Your task to perform on an android device: toggle pop-ups in chrome Image 0: 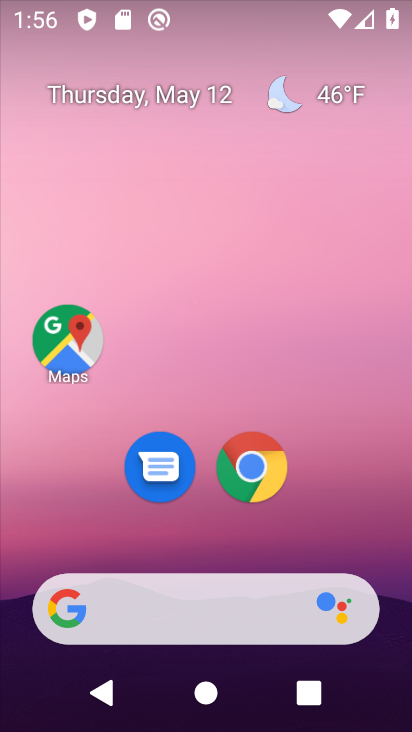
Step 0: click (280, 465)
Your task to perform on an android device: toggle pop-ups in chrome Image 1: 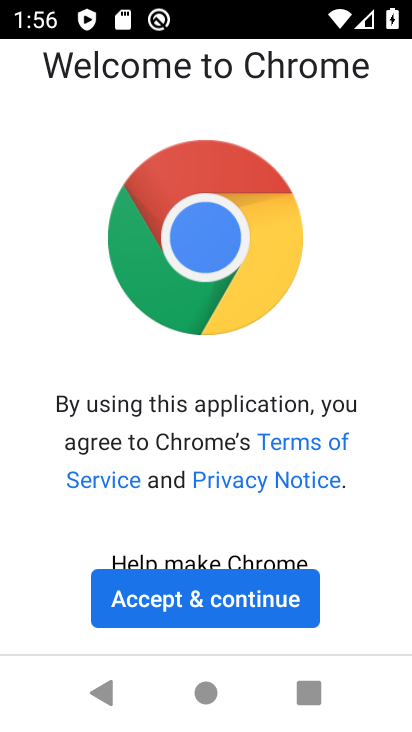
Step 1: click (296, 597)
Your task to perform on an android device: toggle pop-ups in chrome Image 2: 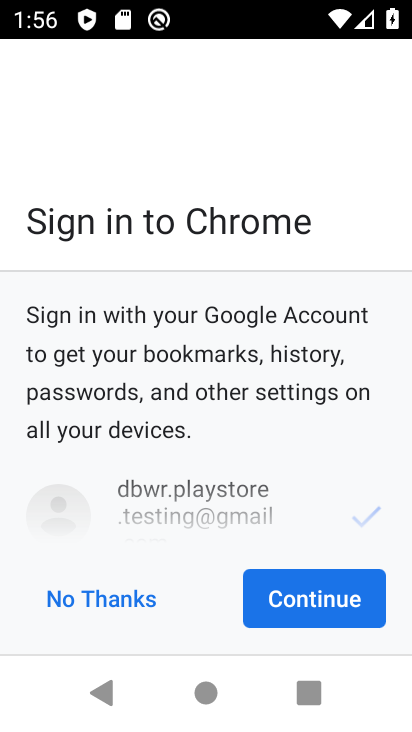
Step 2: click (296, 597)
Your task to perform on an android device: toggle pop-ups in chrome Image 3: 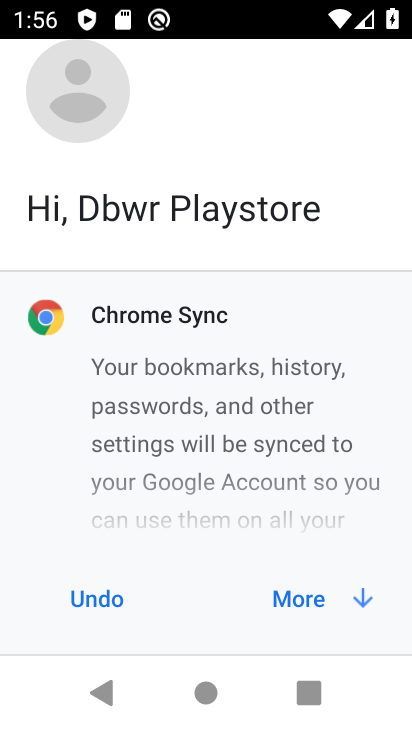
Step 3: click (312, 601)
Your task to perform on an android device: toggle pop-ups in chrome Image 4: 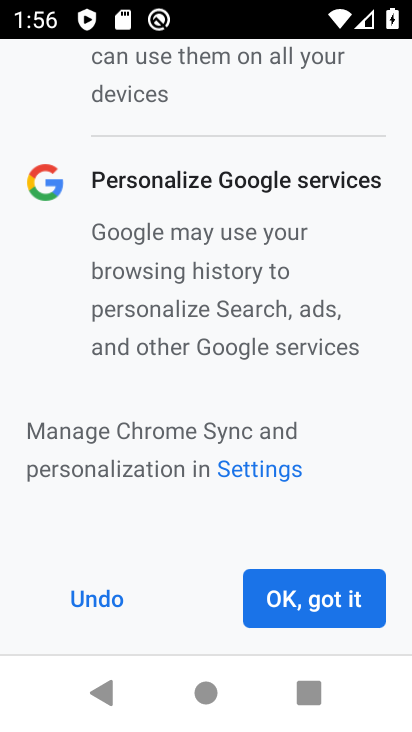
Step 4: click (312, 601)
Your task to perform on an android device: toggle pop-ups in chrome Image 5: 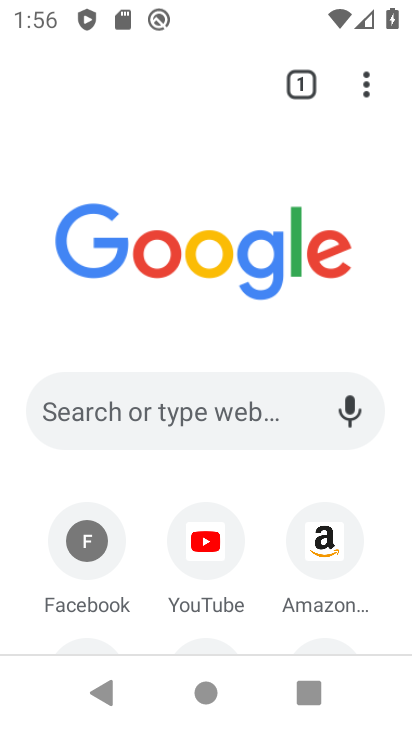
Step 5: click (366, 73)
Your task to perform on an android device: toggle pop-ups in chrome Image 6: 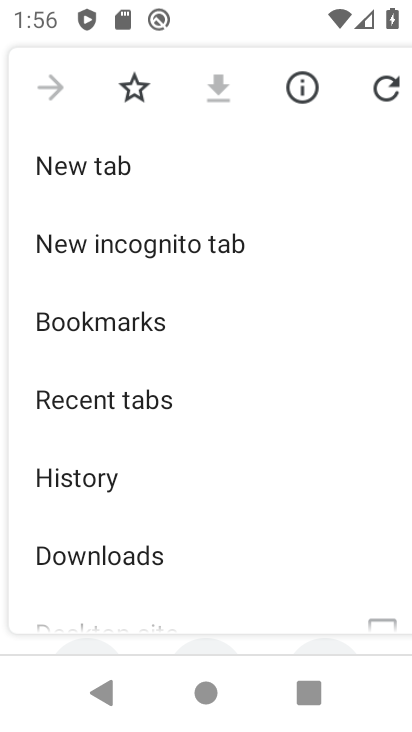
Step 6: drag from (267, 571) to (225, 290)
Your task to perform on an android device: toggle pop-ups in chrome Image 7: 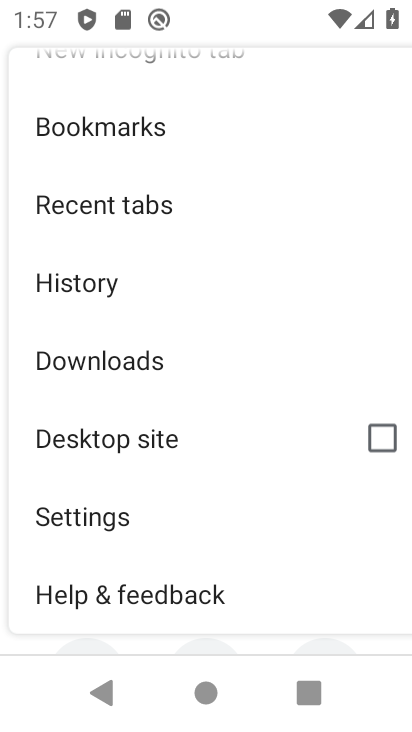
Step 7: click (176, 513)
Your task to perform on an android device: toggle pop-ups in chrome Image 8: 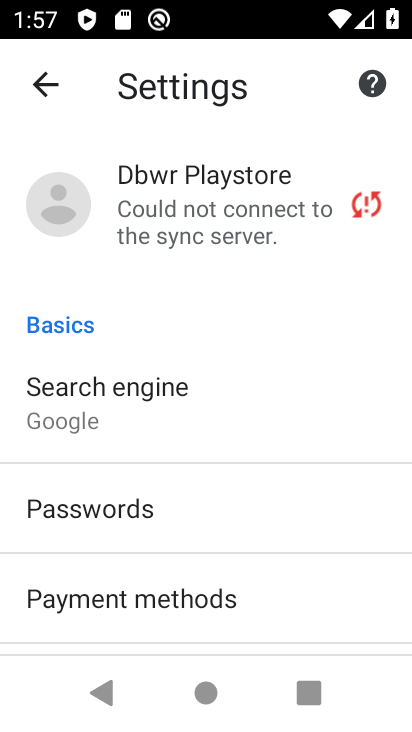
Step 8: drag from (241, 556) to (233, 343)
Your task to perform on an android device: toggle pop-ups in chrome Image 9: 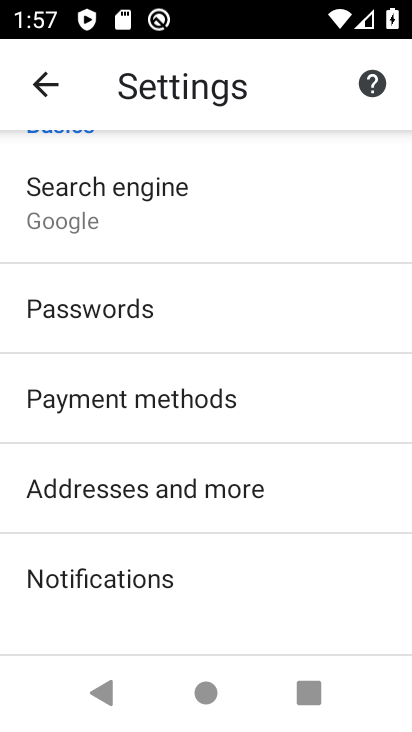
Step 9: drag from (237, 565) to (232, 314)
Your task to perform on an android device: toggle pop-ups in chrome Image 10: 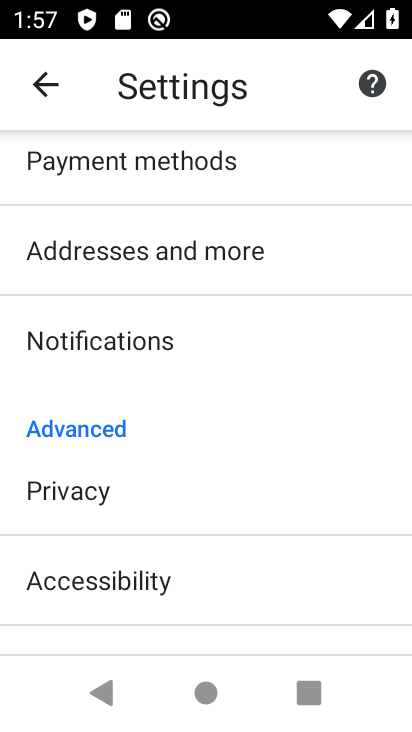
Step 10: drag from (273, 561) to (238, 358)
Your task to perform on an android device: toggle pop-ups in chrome Image 11: 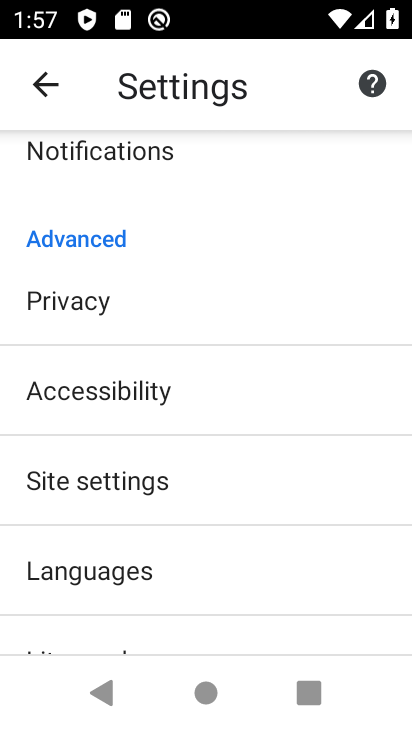
Step 11: click (226, 480)
Your task to perform on an android device: toggle pop-ups in chrome Image 12: 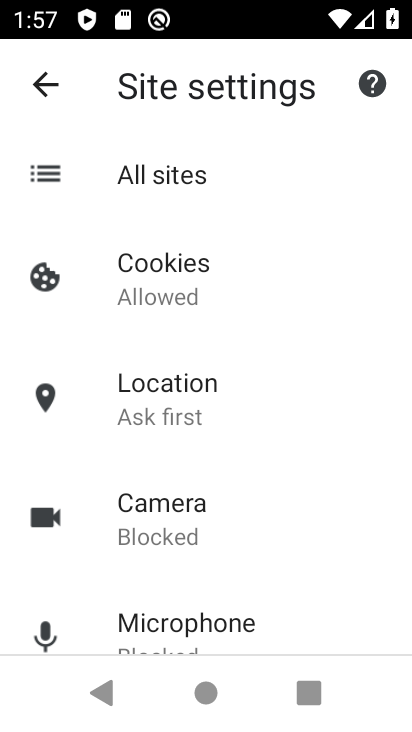
Step 12: drag from (274, 524) to (256, 241)
Your task to perform on an android device: toggle pop-ups in chrome Image 13: 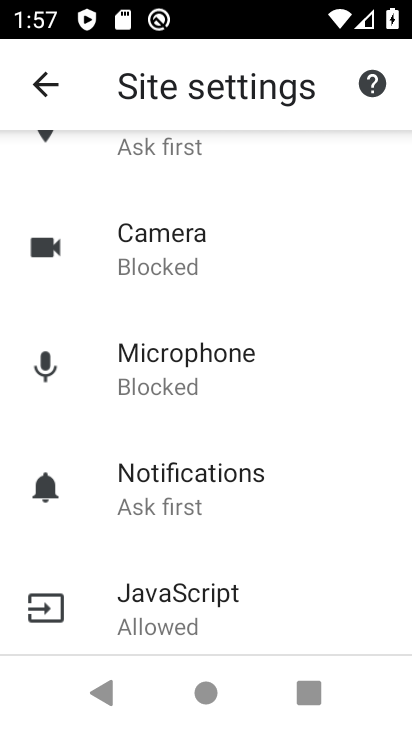
Step 13: drag from (253, 559) to (229, 273)
Your task to perform on an android device: toggle pop-ups in chrome Image 14: 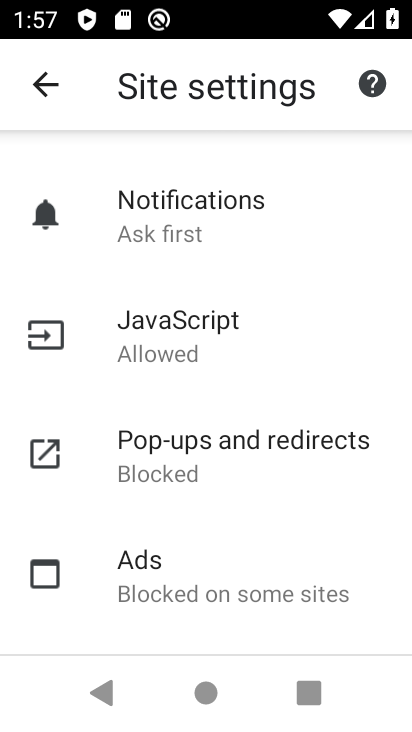
Step 14: click (213, 460)
Your task to perform on an android device: toggle pop-ups in chrome Image 15: 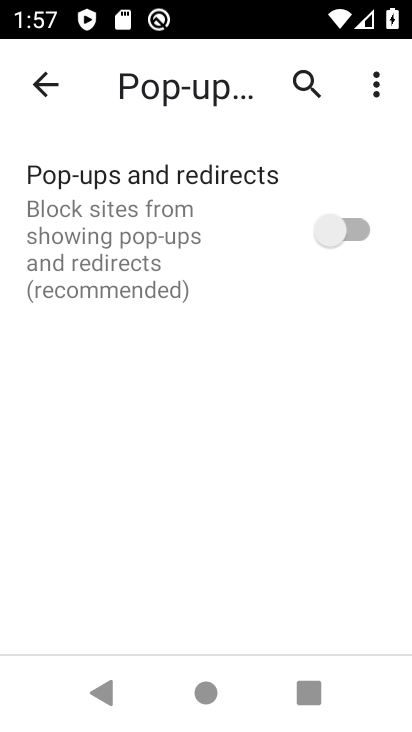
Step 15: click (364, 250)
Your task to perform on an android device: toggle pop-ups in chrome Image 16: 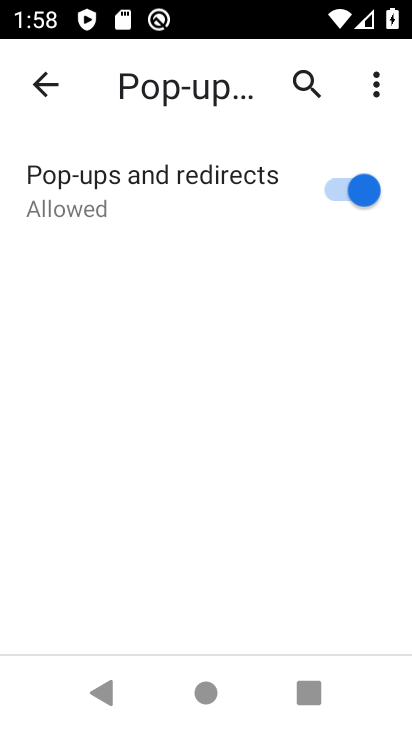
Step 16: task complete